Your task to perform on an android device: turn on javascript in the chrome app Image 0: 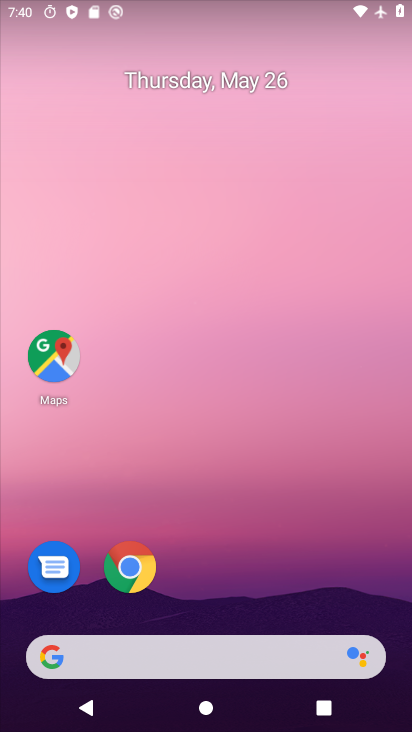
Step 0: click (143, 568)
Your task to perform on an android device: turn on javascript in the chrome app Image 1: 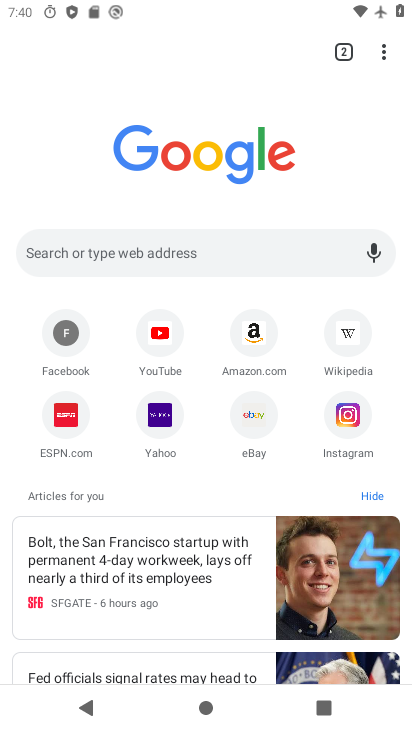
Step 1: drag from (383, 51) to (215, 444)
Your task to perform on an android device: turn on javascript in the chrome app Image 2: 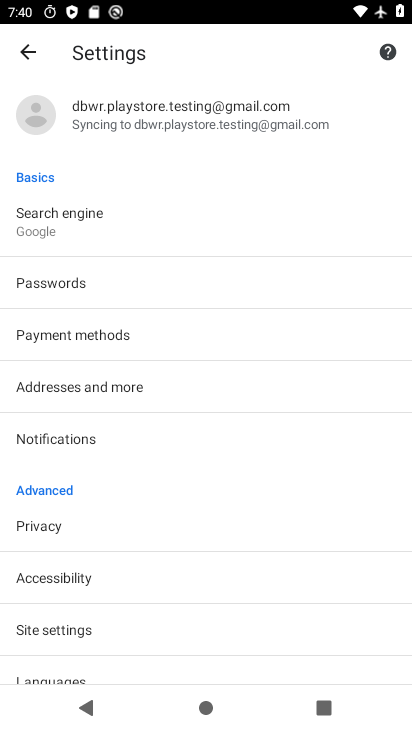
Step 2: click (59, 634)
Your task to perform on an android device: turn on javascript in the chrome app Image 3: 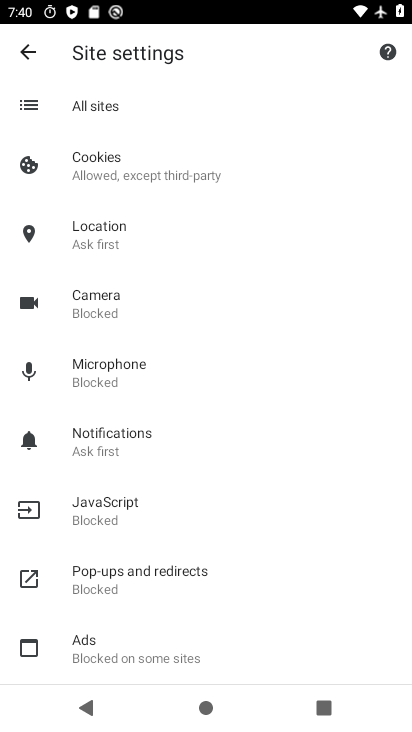
Step 3: click (137, 513)
Your task to perform on an android device: turn on javascript in the chrome app Image 4: 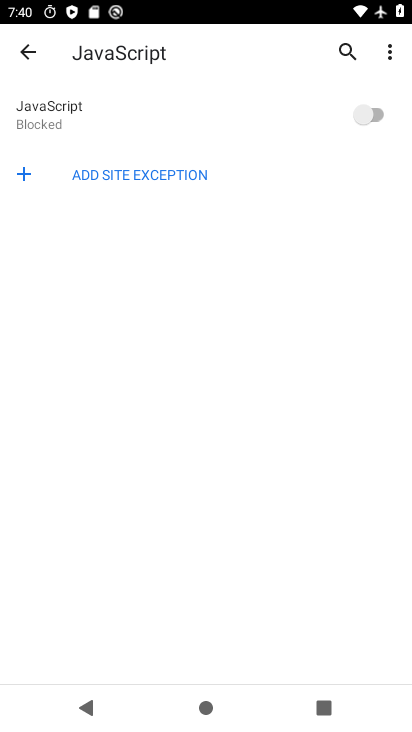
Step 4: click (374, 113)
Your task to perform on an android device: turn on javascript in the chrome app Image 5: 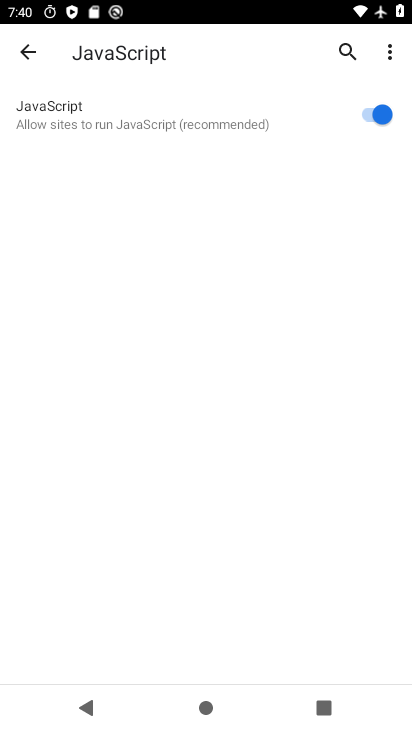
Step 5: task complete